Your task to perform on an android device: Open Google Chrome Image 0: 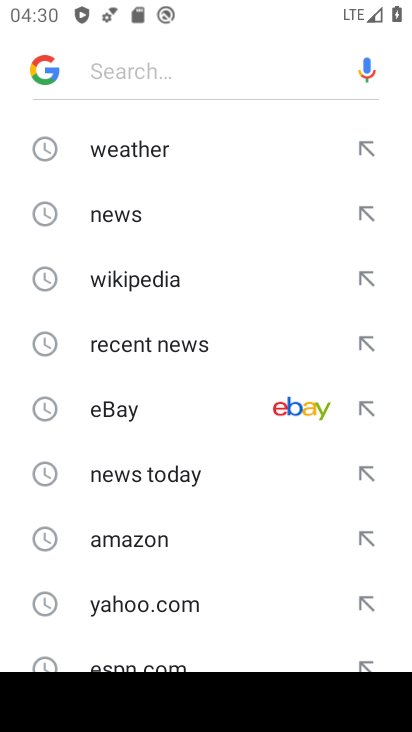
Step 0: press home button
Your task to perform on an android device: Open Google Chrome Image 1: 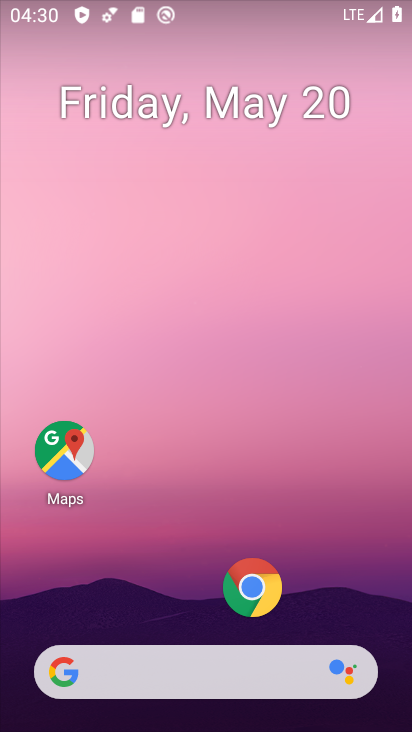
Step 1: click (247, 599)
Your task to perform on an android device: Open Google Chrome Image 2: 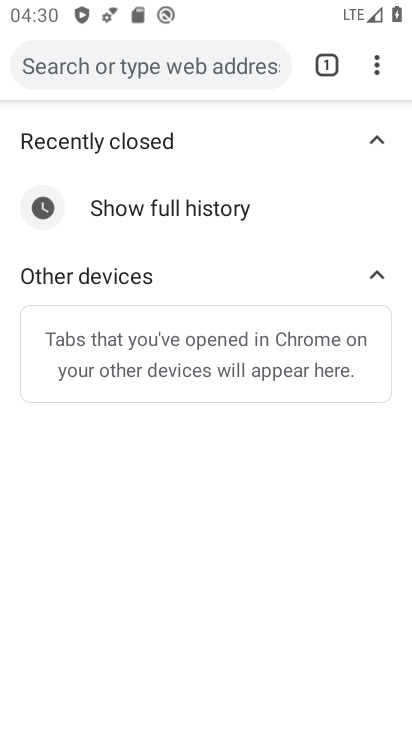
Step 2: task complete